Your task to perform on an android device: Go to settings Image 0: 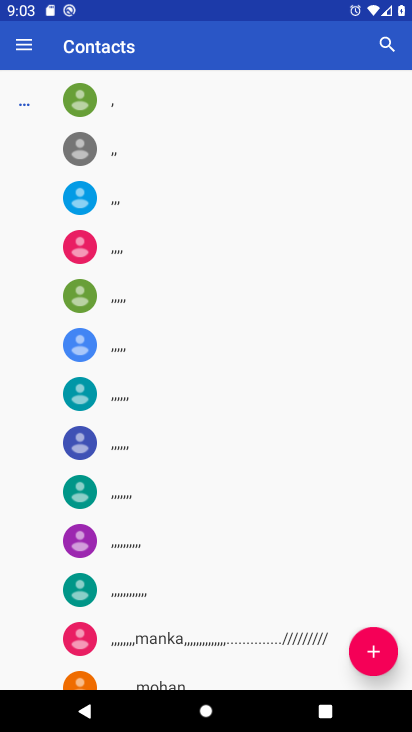
Step 0: press home button
Your task to perform on an android device: Go to settings Image 1: 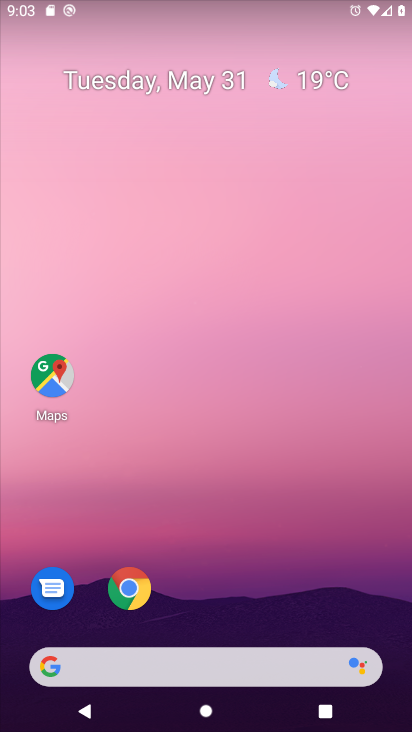
Step 1: drag from (158, 630) to (298, 145)
Your task to perform on an android device: Go to settings Image 2: 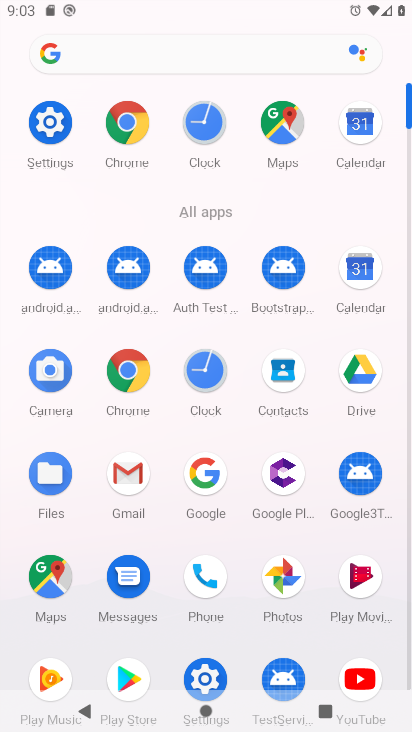
Step 2: click (49, 118)
Your task to perform on an android device: Go to settings Image 3: 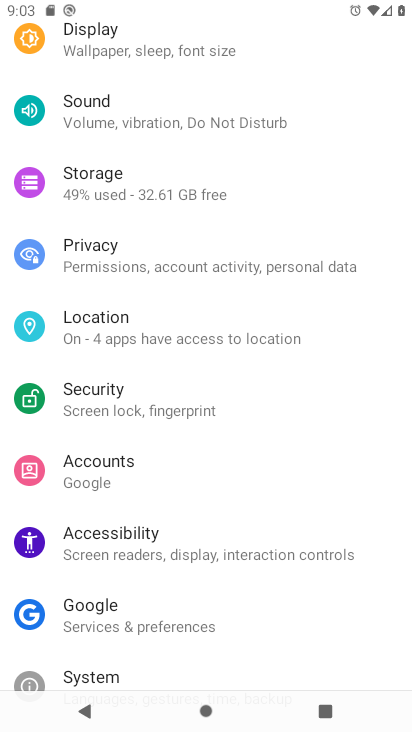
Step 3: task complete